Your task to perform on an android device: toggle sleep mode Image 0: 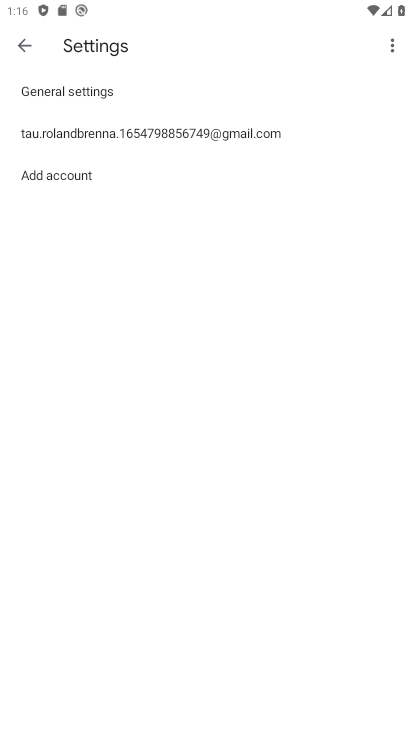
Step 0: press home button
Your task to perform on an android device: toggle sleep mode Image 1: 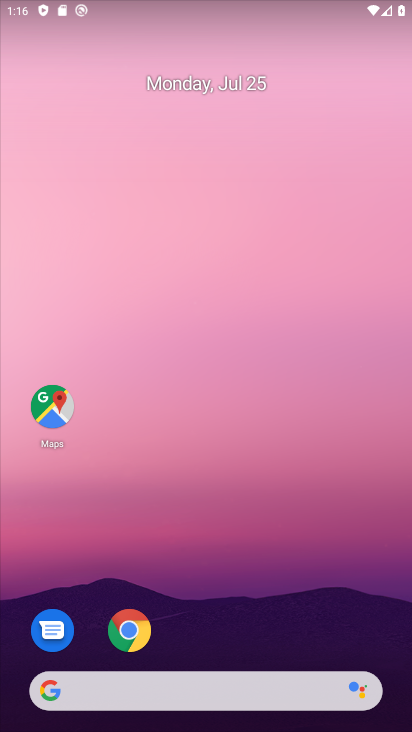
Step 1: drag from (320, 633) to (243, 0)
Your task to perform on an android device: toggle sleep mode Image 2: 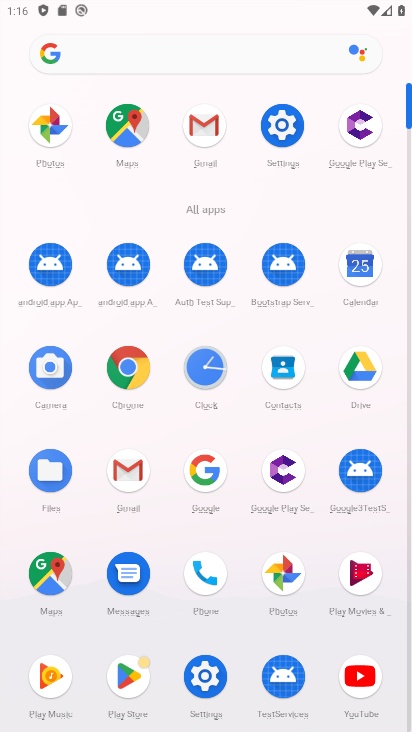
Step 2: click (292, 163)
Your task to perform on an android device: toggle sleep mode Image 3: 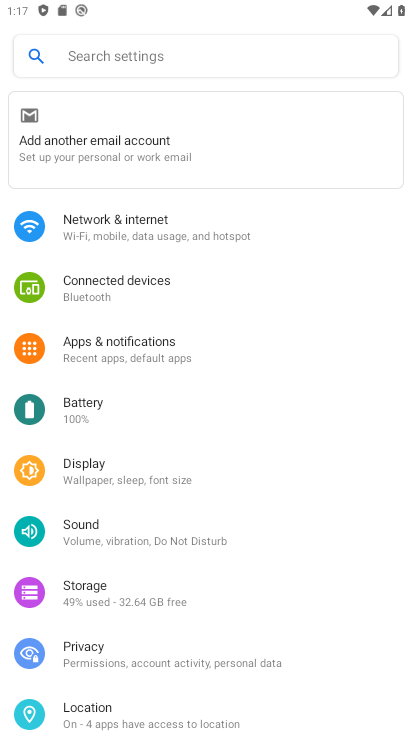
Step 3: click (244, 460)
Your task to perform on an android device: toggle sleep mode Image 4: 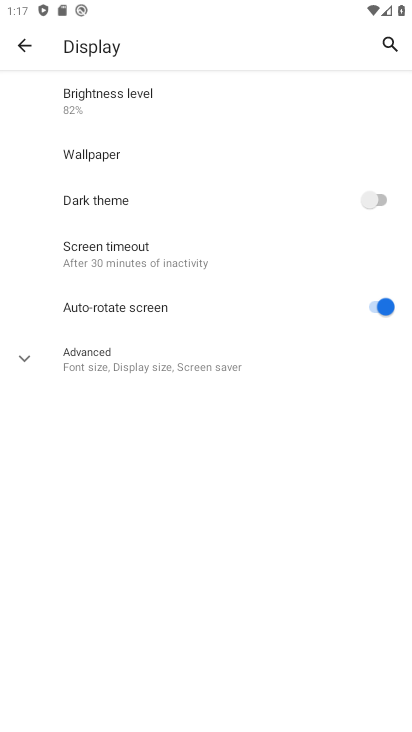
Step 4: task complete